Your task to perform on an android device: turn on improve location accuracy Image 0: 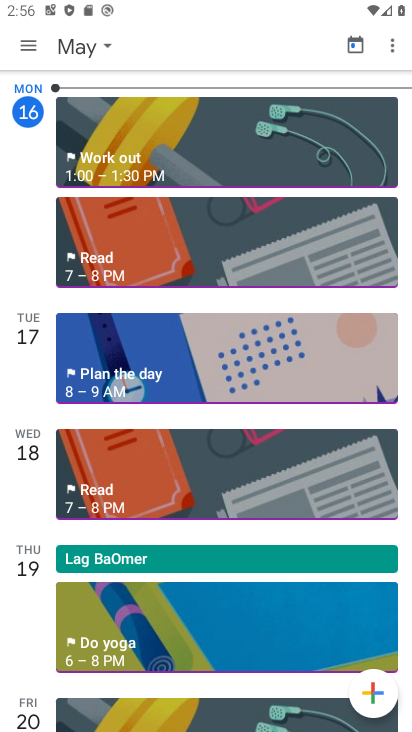
Step 0: press back button
Your task to perform on an android device: turn on improve location accuracy Image 1: 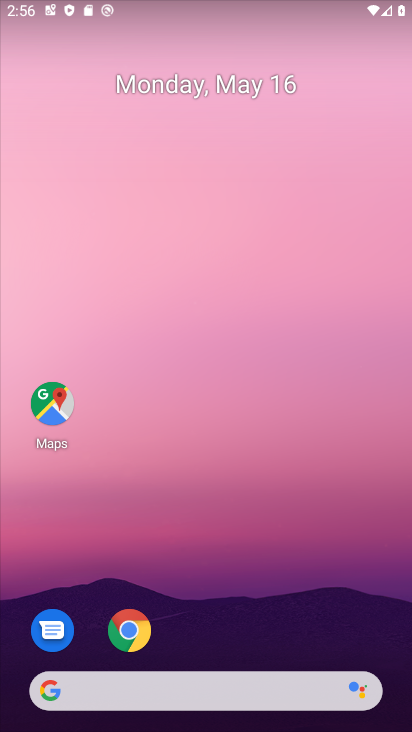
Step 1: drag from (249, 582) to (227, 44)
Your task to perform on an android device: turn on improve location accuracy Image 2: 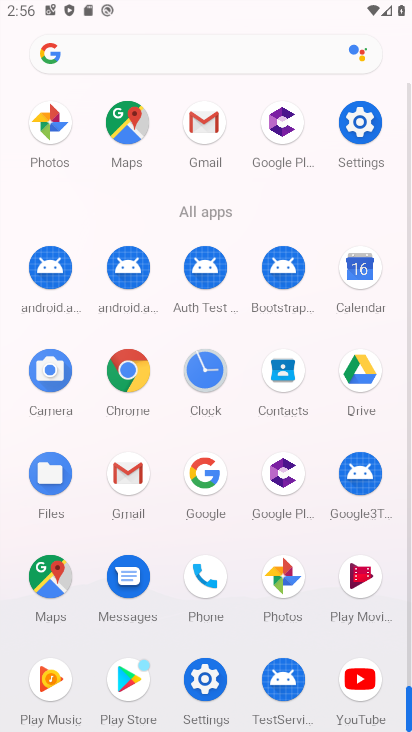
Step 2: click (207, 677)
Your task to perform on an android device: turn on improve location accuracy Image 3: 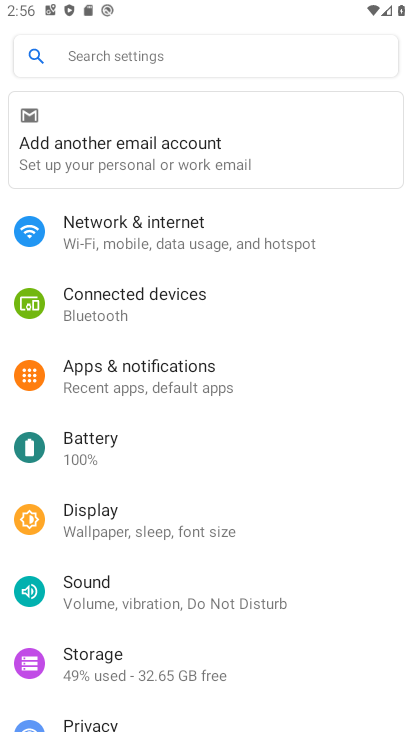
Step 3: drag from (245, 540) to (268, 190)
Your task to perform on an android device: turn on improve location accuracy Image 4: 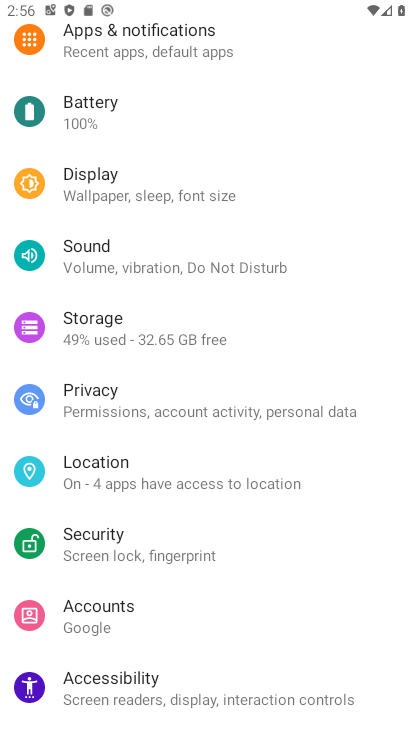
Step 4: drag from (216, 521) to (214, 239)
Your task to perform on an android device: turn on improve location accuracy Image 5: 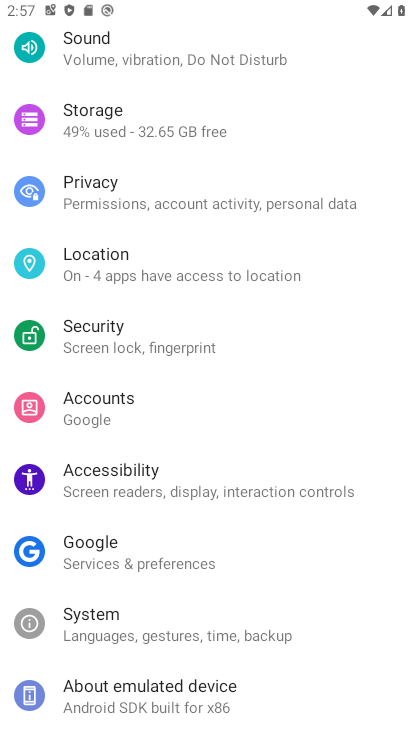
Step 5: click (132, 263)
Your task to perform on an android device: turn on improve location accuracy Image 6: 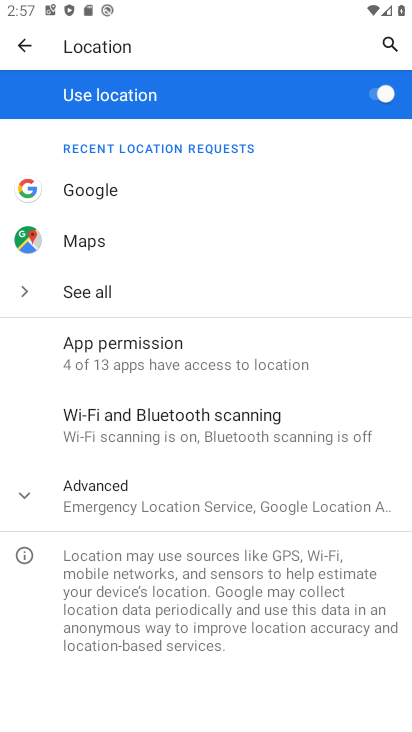
Step 6: click (147, 490)
Your task to perform on an android device: turn on improve location accuracy Image 7: 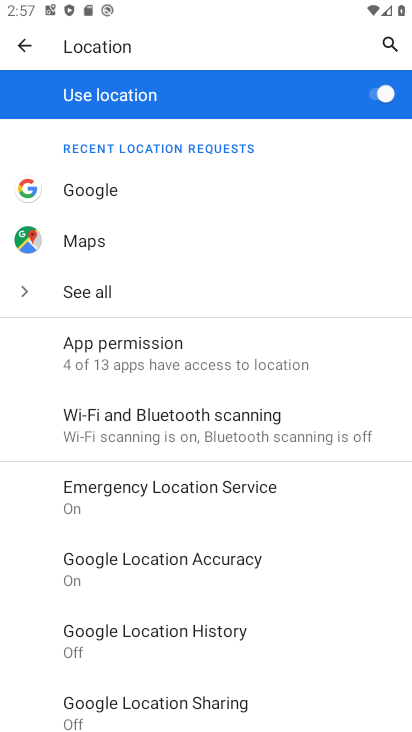
Step 7: drag from (279, 606) to (298, 304)
Your task to perform on an android device: turn on improve location accuracy Image 8: 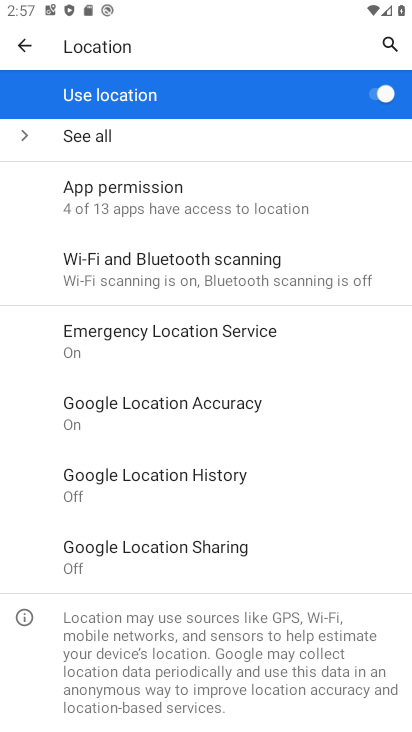
Step 8: click (209, 412)
Your task to perform on an android device: turn on improve location accuracy Image 9: 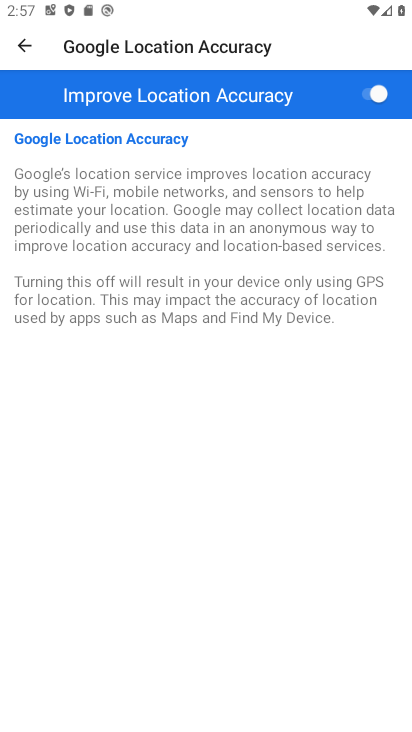
Step 9: task complete